Your task to perform on an android device: Go to notification settings Image 0: 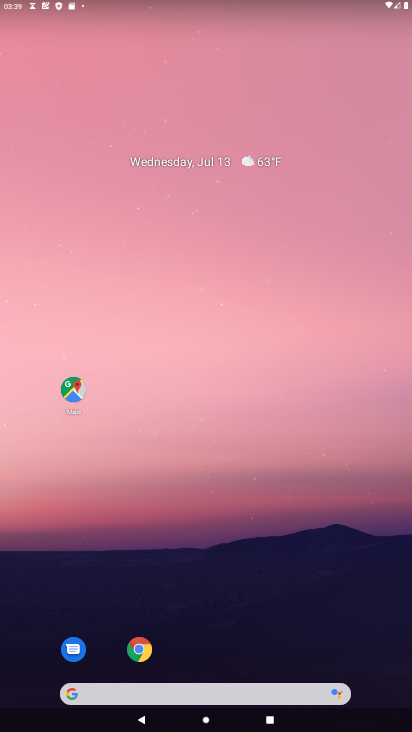
Step 0: drag from (202, 616) to (202, 122)
Your task to perform on an android device: Go to notification settings Image 1: 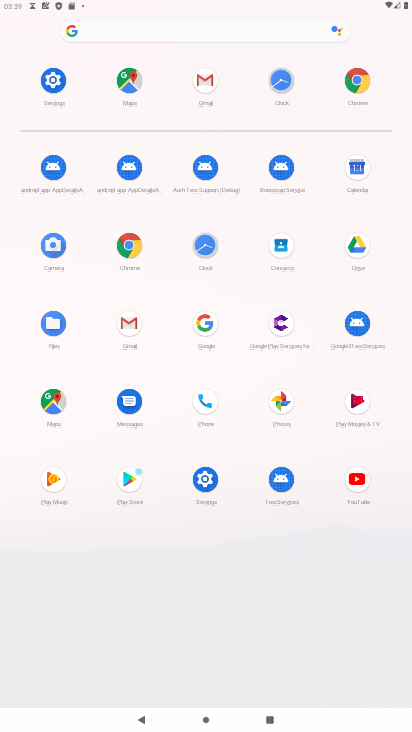
Step 1: click (62, 79)
Your task to perform on an android device: Go to notification settings Image 2: 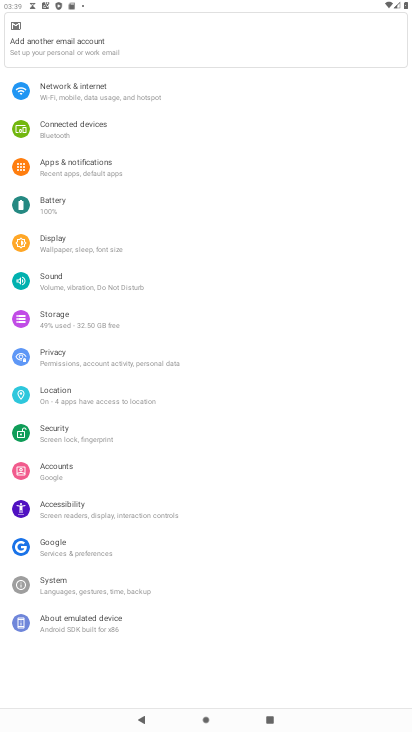
Step 2: click (80, 182)
Your task to perform on an android device: Go to notification settings Image 3: 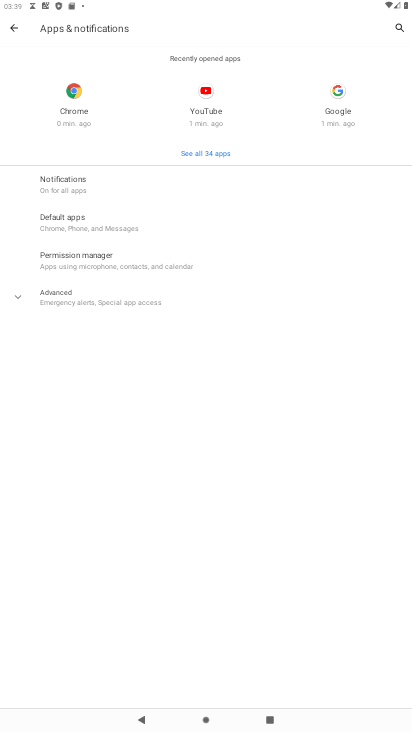
Step 3: click (66, 185)
Your task to perform on an android device: Go to notification settings Image 4: 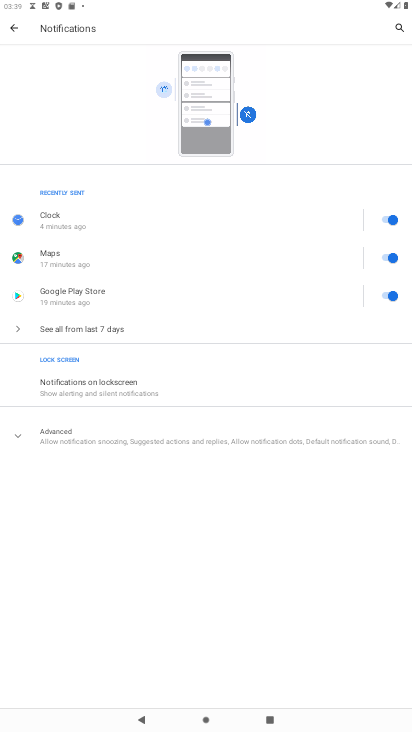
Step 4: task complete